Your task to perform on an android device: see tabs open on other devices in the chrome app Image 0: 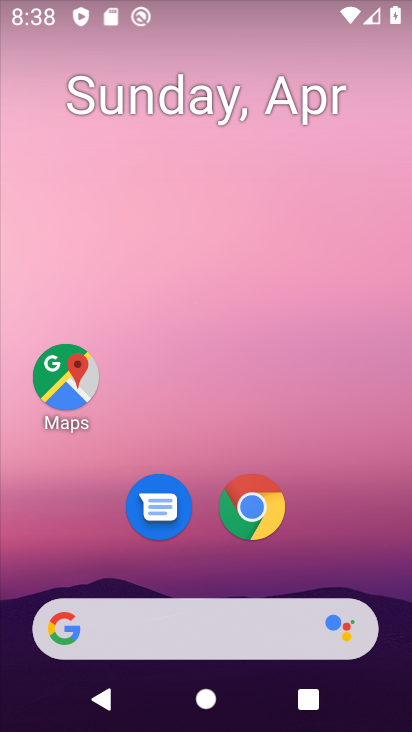
Step 0: click (170, 62)
Your task to perform on an android device: see tabs open on other devices in the chrome app Image 1: 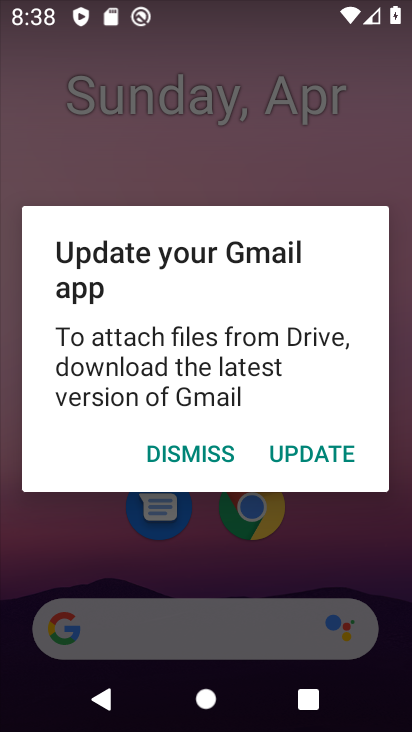
Step 1: click (383, 153)
Your task to perform on an android device: see tabs open on other devices in the chrome app Image 2: 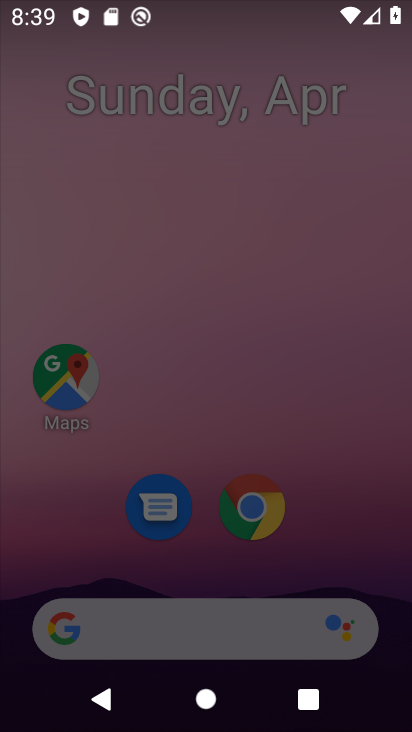
Step 2: drag from (251, 601) to (269, 159)
Your task to perform on an android device: see tabs open on other devices in the chrome app Image 3: 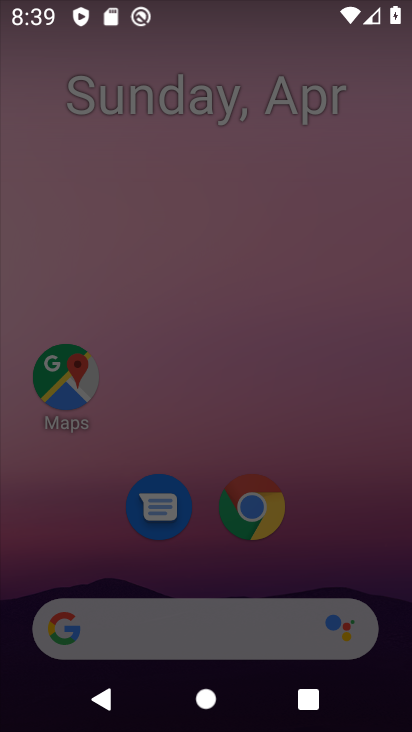
Step 3: press home button
Your task to perform on an android device: see tabs open on other devices in the chrome app Image 4: 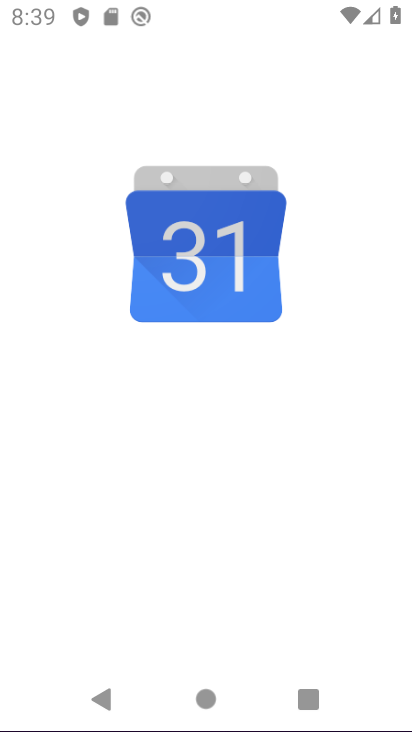
Step 4: drag from (200, 552) to (249, 143)
Your task to perform on an android device: see tabs open on other devices in the chrome app Image 5: 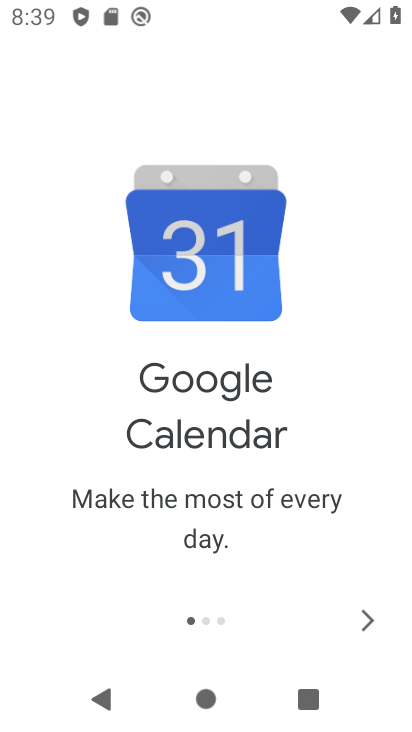
Step 5: press home button
Your task to perform on an android device: see tabs open on other devices in the chrome app Image 6: 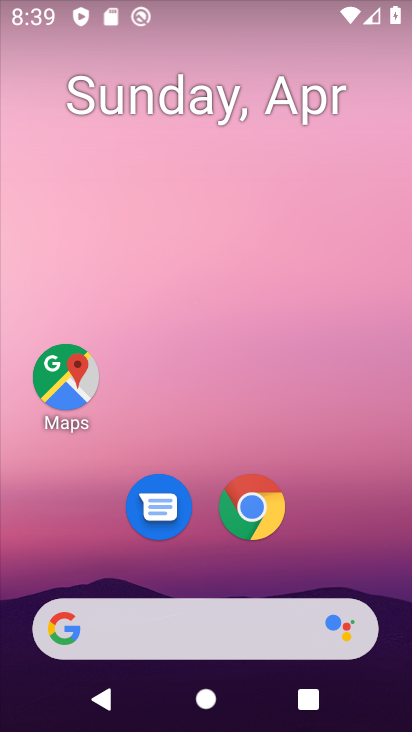
Step 6: drag from (212, 530) to (256, 166)
Your task to perform on an android device: see tabs open on other devices in the chrome app Image 7: 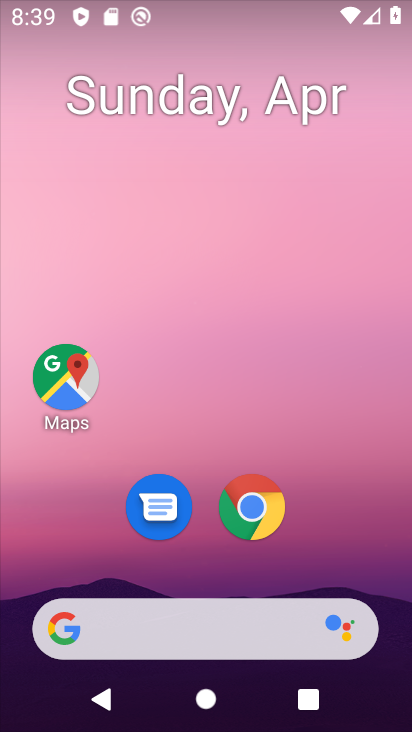
Step 7: drag from (232, 558) to (266, 212)
Your task to perform on an android device: see tabs open on other devices in the chrome app Image 8: 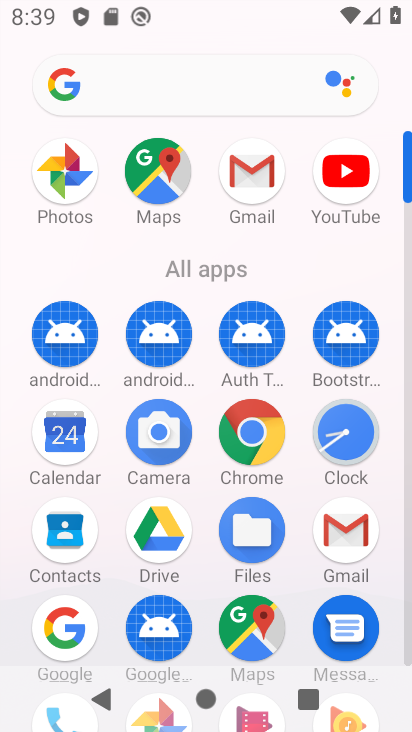
Step 8: click (261, 441)
Your task to perform on an android device: see tabs open on other devices in the chrome app Image 9: 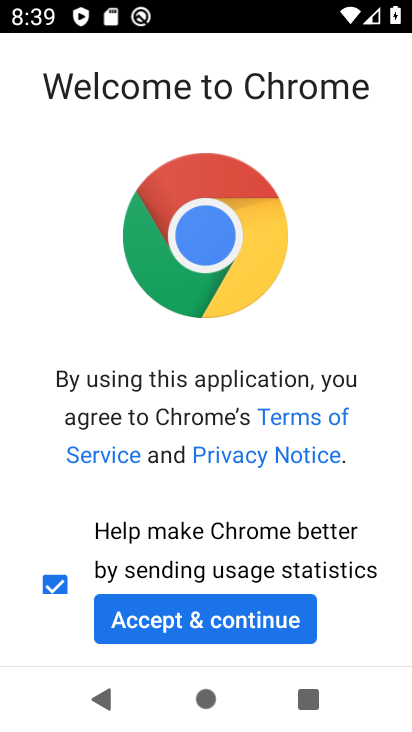
Step 9: click (266, 618)
Your task to perform on an android device: see tabs open on other devices in the chrome app Image 10: 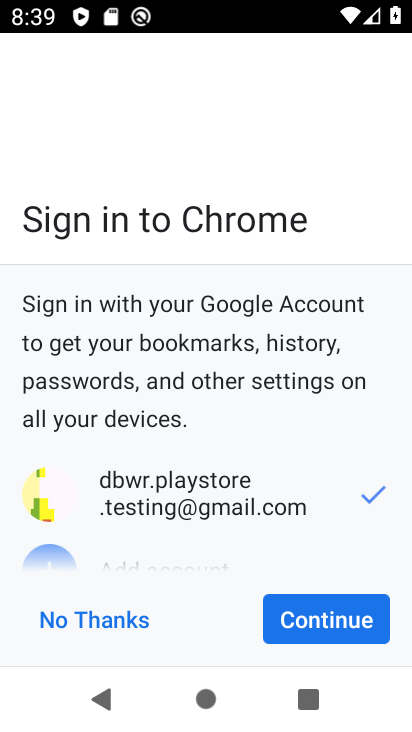
Step 10: click (323, 627)
Your task to perform on an android device: see tabs open on other devices in the chrome app Image 11: 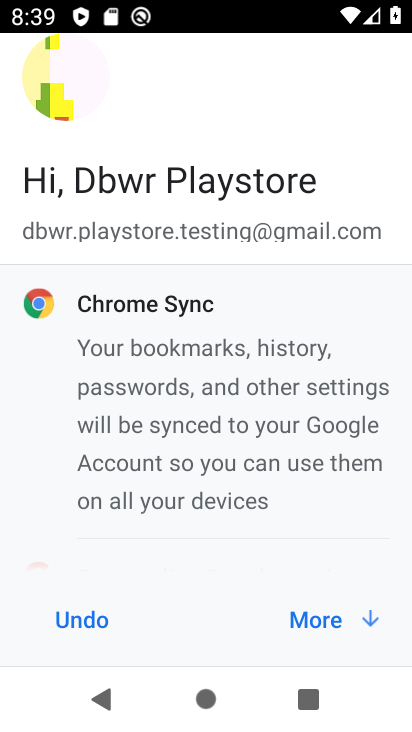
Step 11: click (354, 619)
Your task to perform on an android device: see tabs open on other devices in the chrome app Image 12: 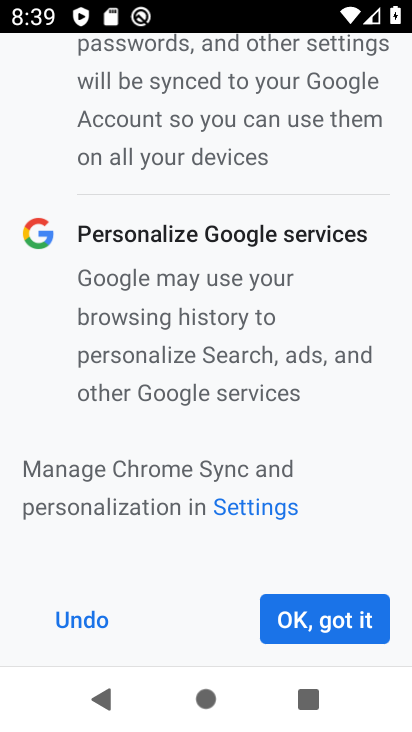
Step 12: click (355, 626)
Your task to perform on an android device: see tabs open on other devices in the chrome app Image 13: 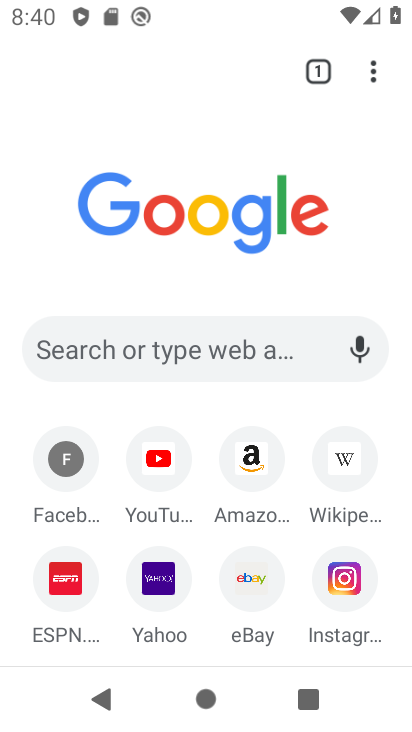
Step 13: task complete